Your task to perform on an android device: turn off improve location accuracy Image 0: 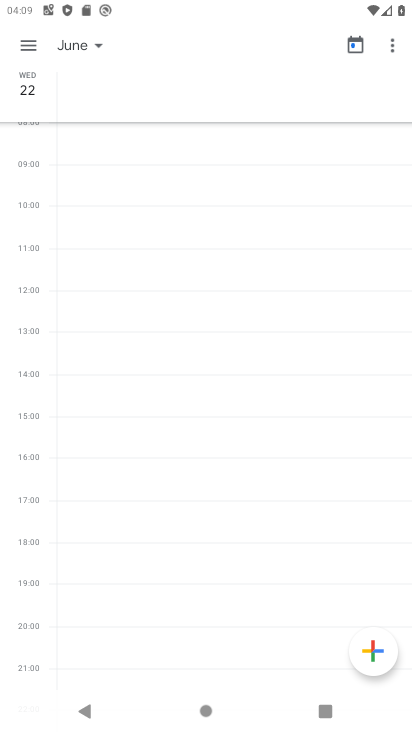
Step 0: press home button
Your task to perform on an android device: turn off improve location accuracy Image 1: 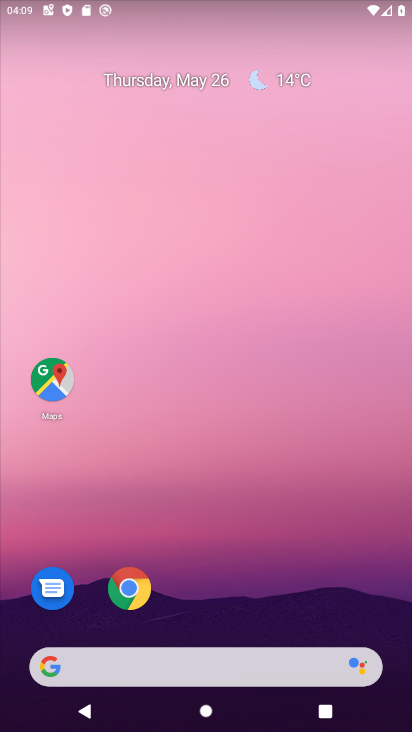
Step 1: drag from (226, 596) to (255, 139)
Your task to perform on an android device: turn off improve location accuracy Image 2: 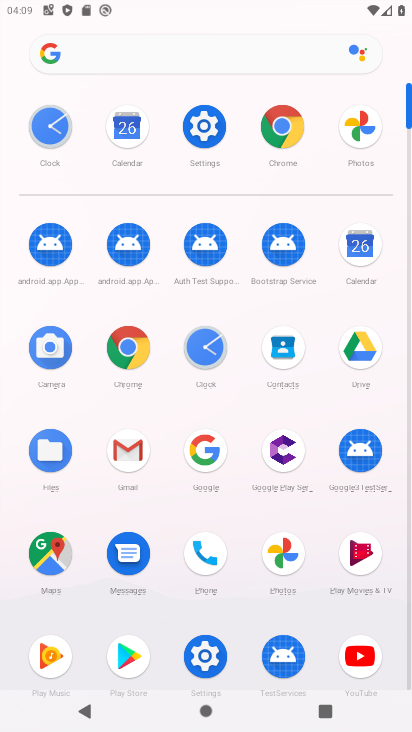
Step 2: click (194, 139)
Your task to perform on an android device: turn off improve location accuracy Image 3: 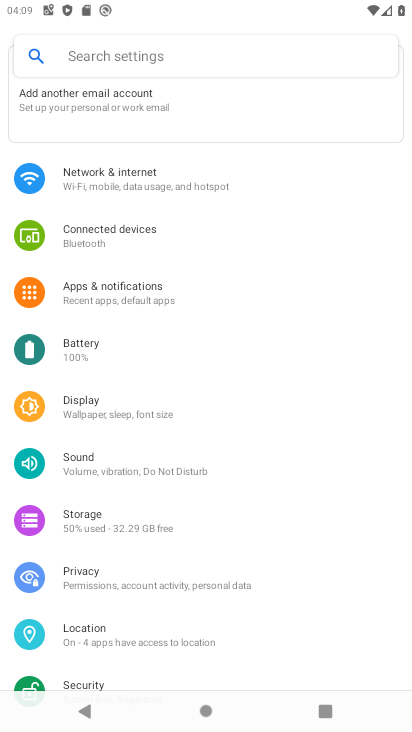
Step 3: click (138, 646)
Your task to perform on an android device: turn off improve location accuracy Image 4: 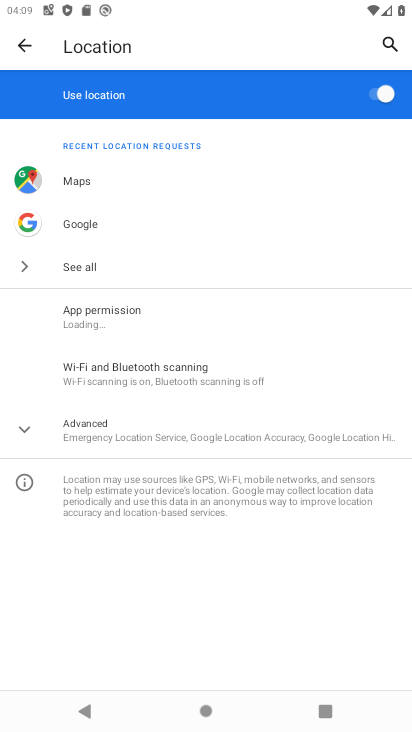
Step 4: click (212, 423)
Your task to perform on an android device: turn off improve location accuracy Image 5: 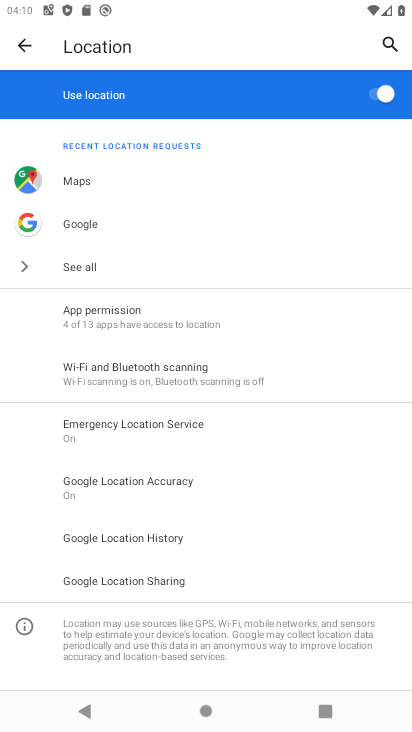
Step 5: click (216, 485)
Your task to perform on an android device: turn off improve location accuracy Image 6: 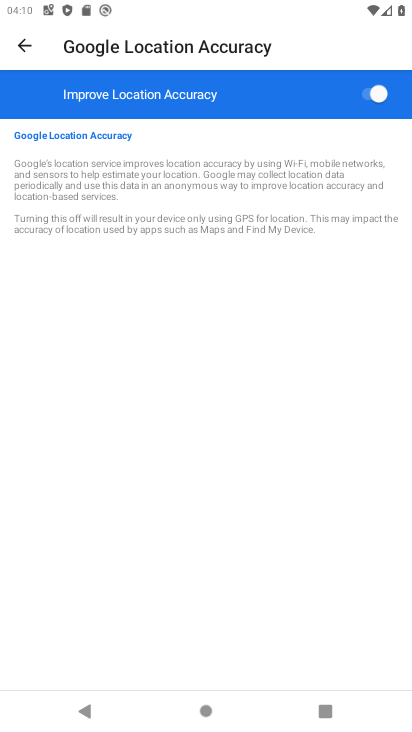
Step 6: click (391, 79)
Your task to perform on an android device: turn off improve location accuracy Image 7: 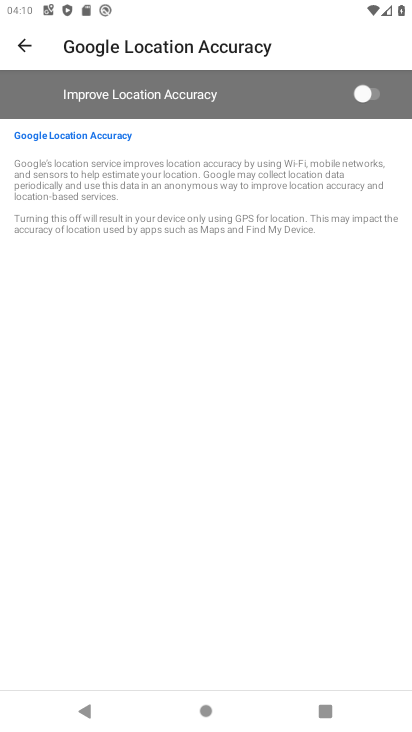
Step 7: task complete